Your task to perform on an android device: turn off smart reply in the gmail app Image 0: 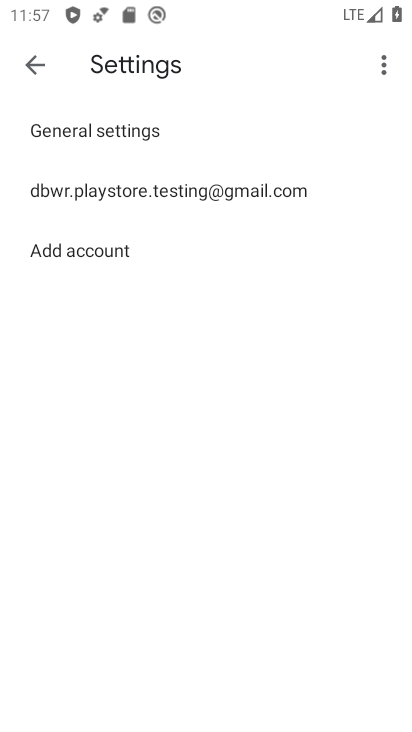
Step 0: press back button
Your task to perform on an android device: turn off smart reply in the gmail app Image 1: 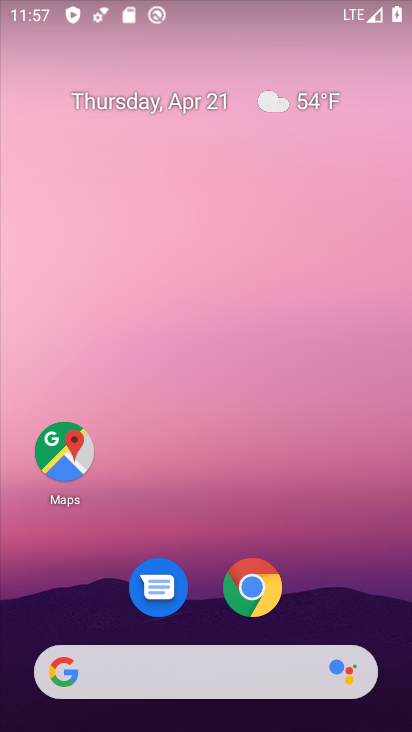
Step 1: drag from (212, 464) to (250, 92)
Your task to perform on an android device: turn off smart reply in the gmail app Image 2: 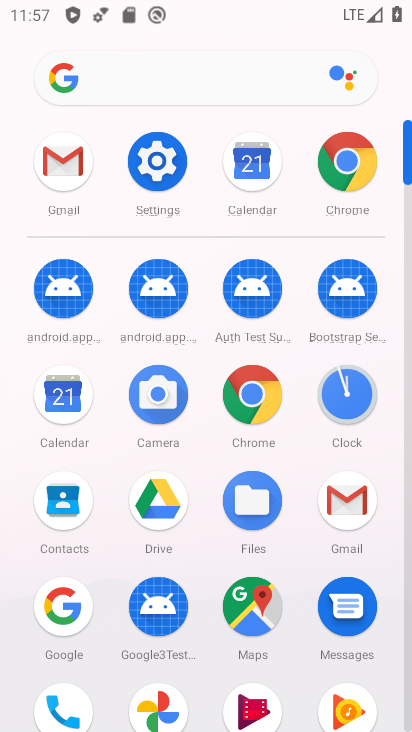
Step 2: click (50, 165)
Your task to perform on an android device: turn off smart reply in the gmail app Image 3: 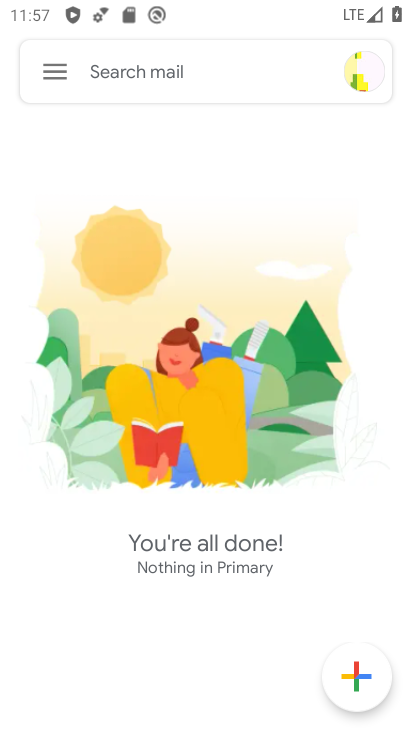
Step 3: click (59, 67)
Your task to perform on an android device: turn off smart reply in the gmail app Image 4: 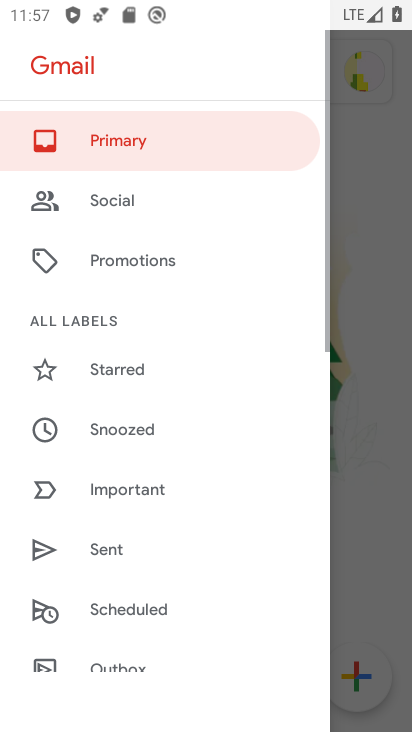
Step 4: drag from (169, 610) to (279, 101)
Your task to perform on an android device: turn off smart reply in the gmail app Image 5: 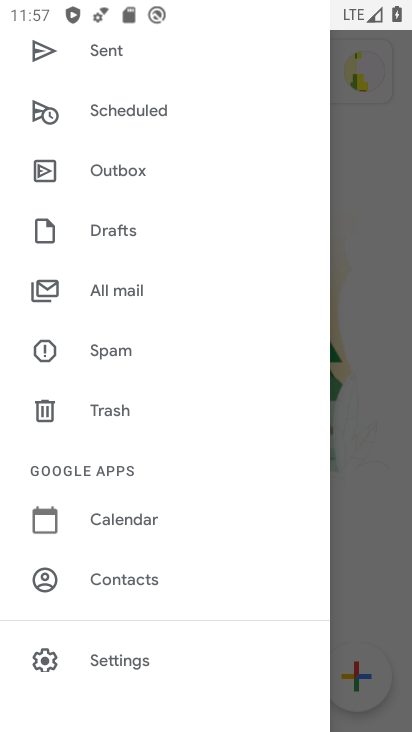
Step 5: click (151, 649)
Your task to perform on an android device: turn off smart reply in the gmail app Image 6: 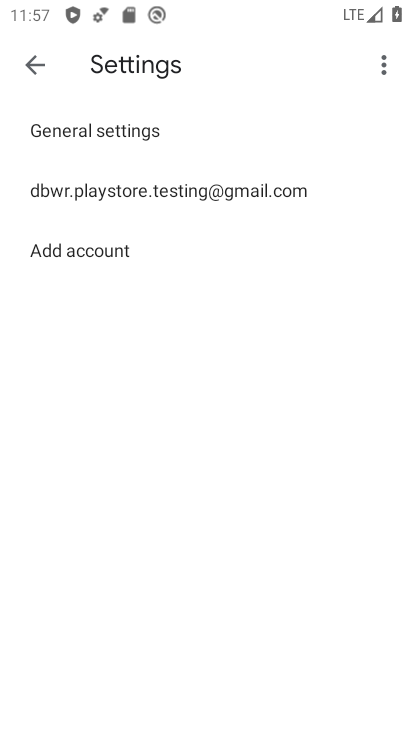
Step 6: click (171, 185)
Your task to perform on an android device: turn off smart reply in the gmail app Image 7: 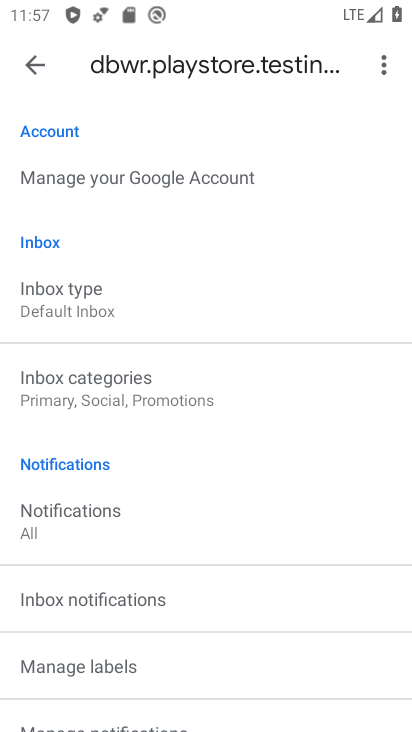
Step 7: drag from (236, 641) to (328, 91)
Your task to perform on an android device: turn off smart reply in the gmail app Image 8: 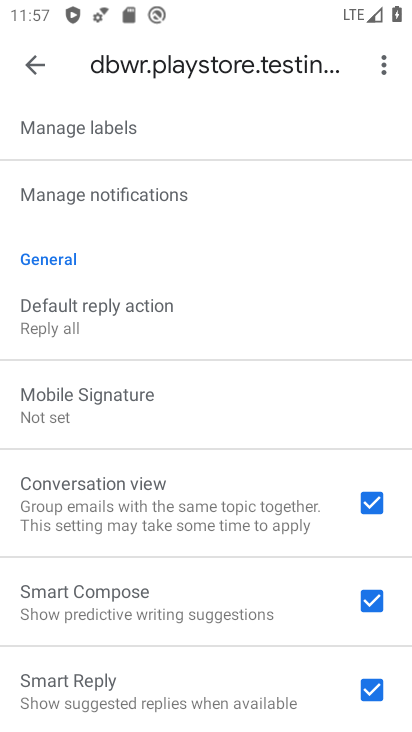
Step 8: click (376, 686)
Your task to perform on an android device: turn off smart reply in the gmail app Image 9: 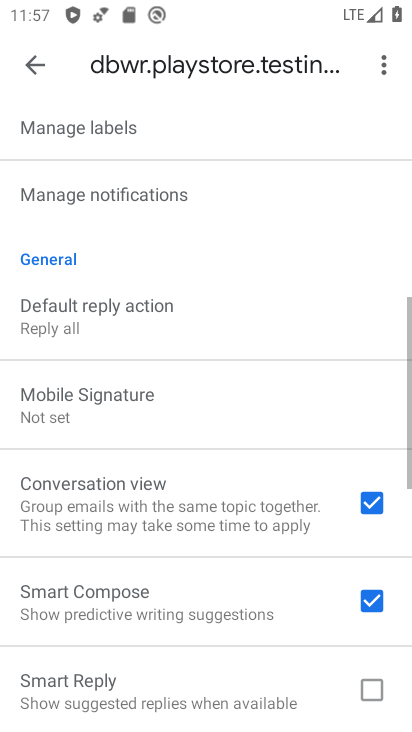
Step 9: task complete